Your task to perform on an android device: turn off location history Image 0: 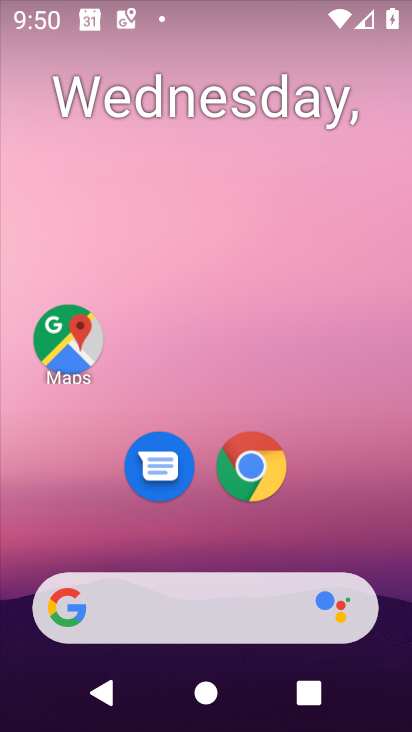
Step 0: drag from (336, 473) to (335, 225)
Your task to perform on an android device: turn off location history Image 1: 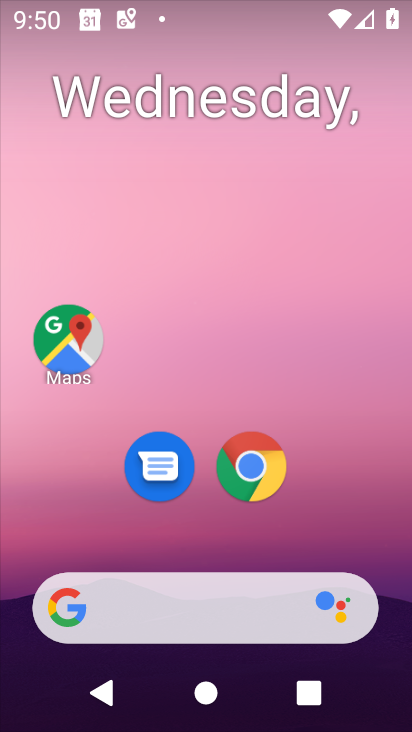
Step 1: drag from (299, 532) to (299, 411)
Your task to perform on an android device: turn off location history Image 2: 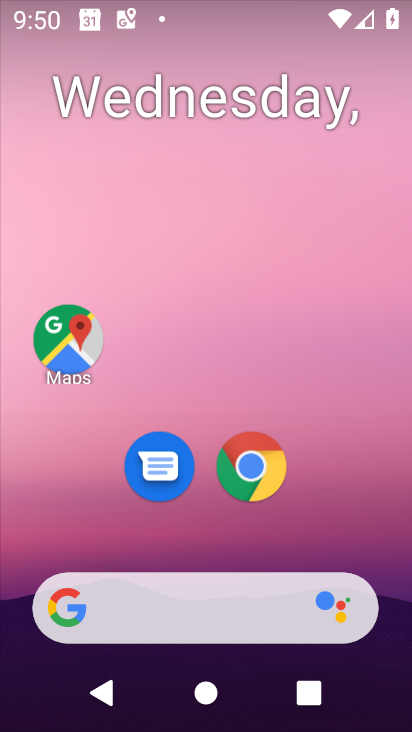
Step 2: click (96, 308)
Your task to perform on an android device: turn off location history Image 3: 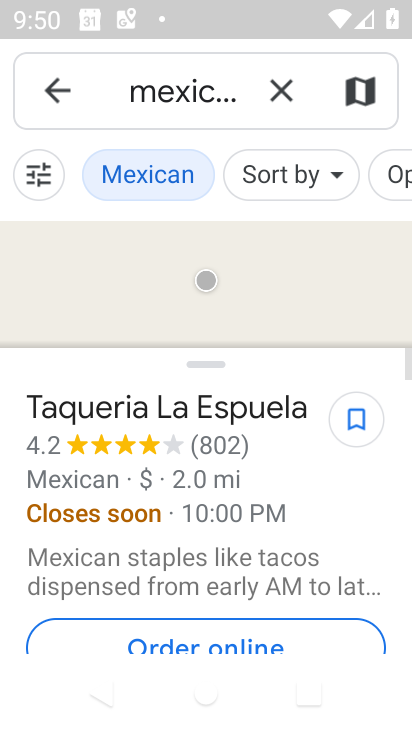
Step 3: click (273, 90)
Your task to perform on an android device: turn off location history Image 4: 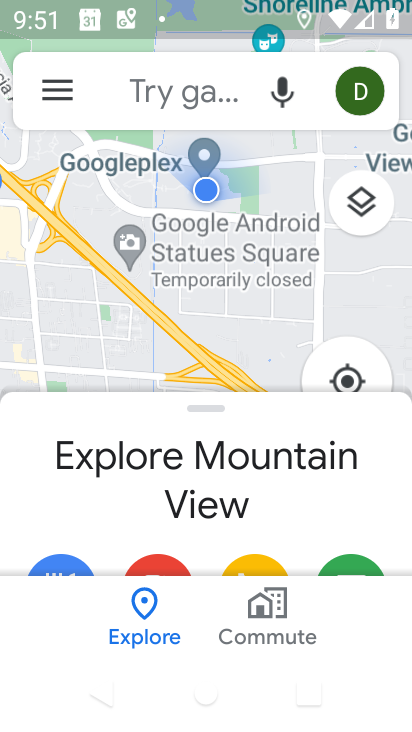
Step 4: click (46, 91)
Your task to perform on an android device: turn off location history Image 5: 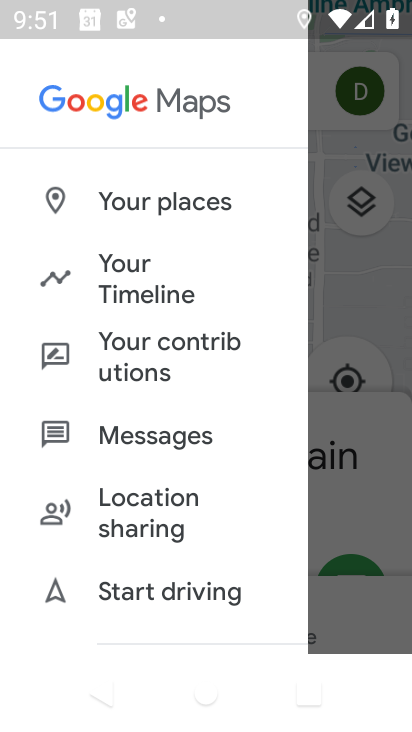
Step 5: drag from (224, 593) to (215, 468)
Your task to perform on an android device: turn off location history Image 6: 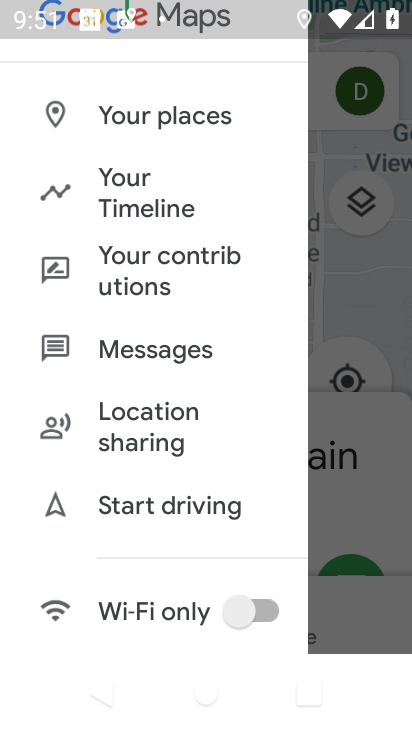
Step 6: click (140, 192)
Your task to perform on an android device: turn off location history Image 7: 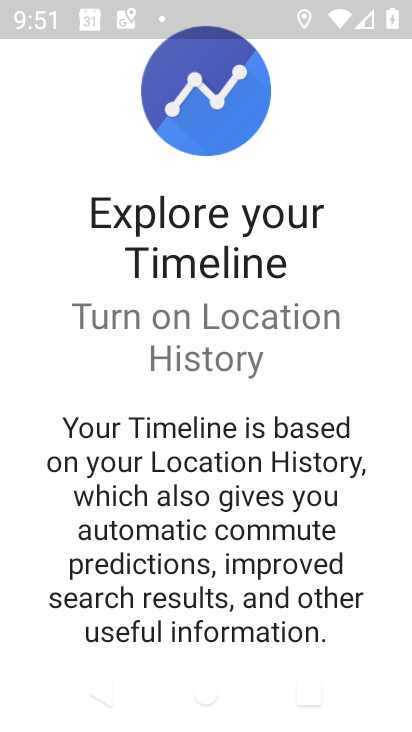
Step 7: drag from (226, 538) to (282, 40)
Your task to perform on an android device: turn off location history Image 8: 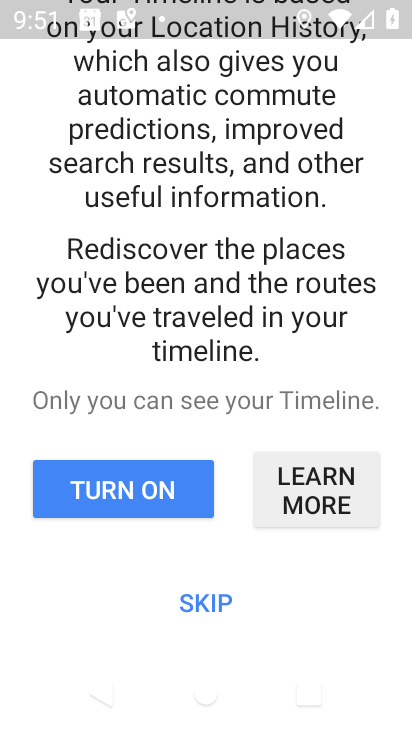
Step 8: click (216, 597)
Your task to perform on an android device: turn off location history Image 9: 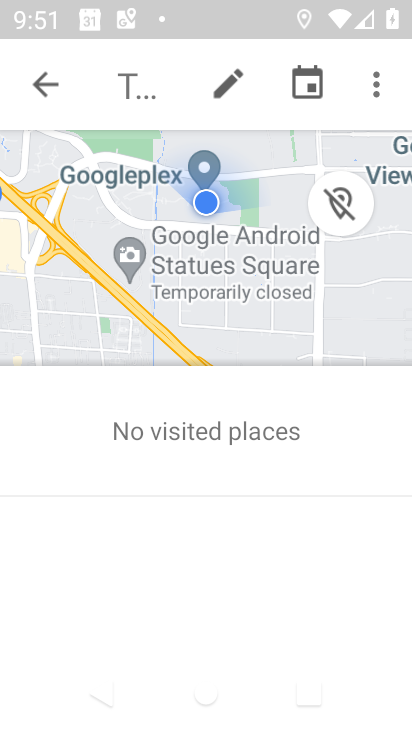
Step 9: click (369, 70)
Your task to perform on an android device: turn off location history Image 10: 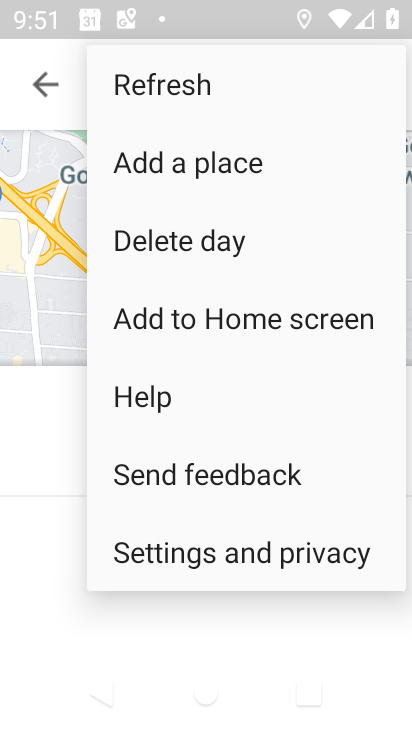
Step 10: click (208, 550)
Your task to perform on an android device: turn off location history Image 11: 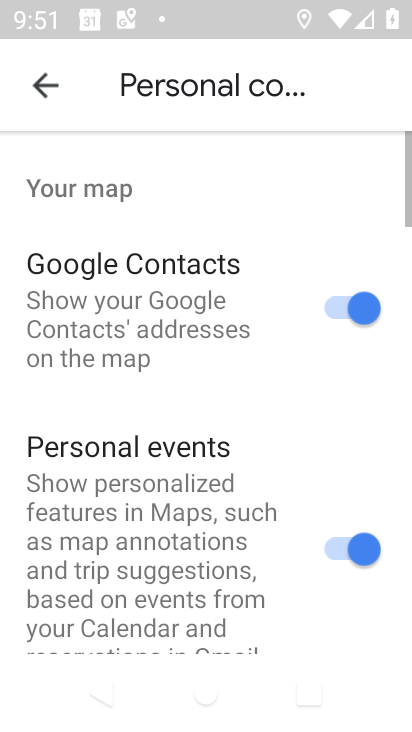
Step 11: drag from (193, 593) to (246, 152)
Your task to perform on an android device: turn off location history Image 12: 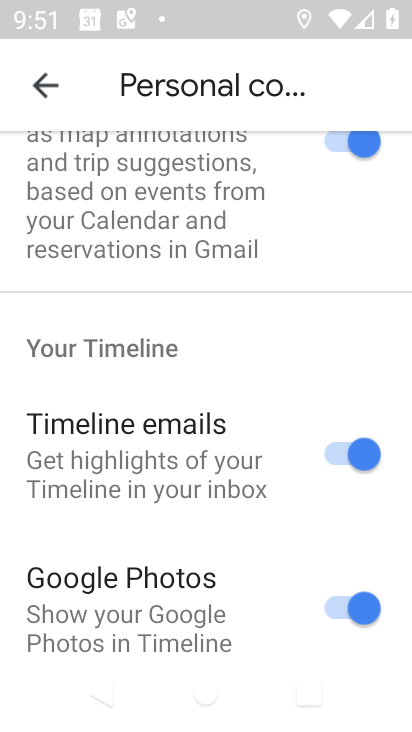
Step 12: drag from (200, 560) to (237, 131)
Your task to perform on an android device: turn off location history Image 13: 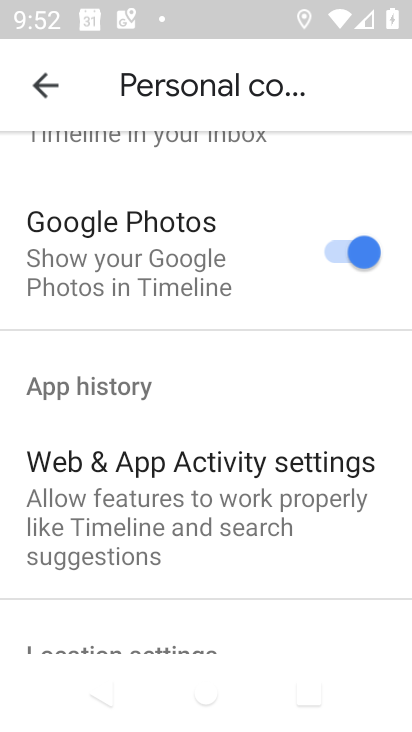
Step 13: drag from (168, 561) to (280, 132)
Your task to perform on an android device: turn off location history Image 14: 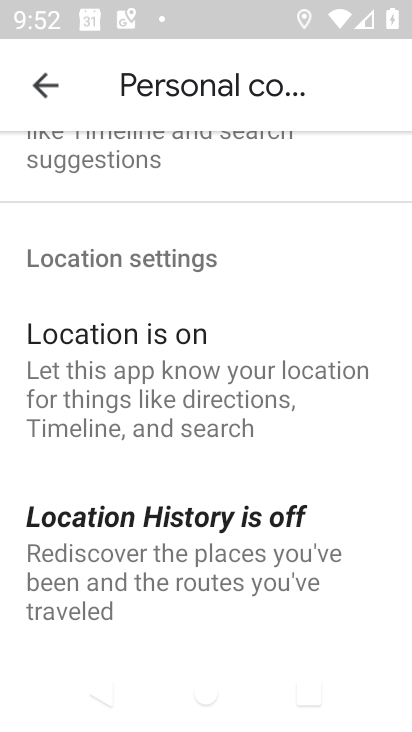
Step 14: click (176, 553)
Your task to perform on an android device: turn off location history Image 15: 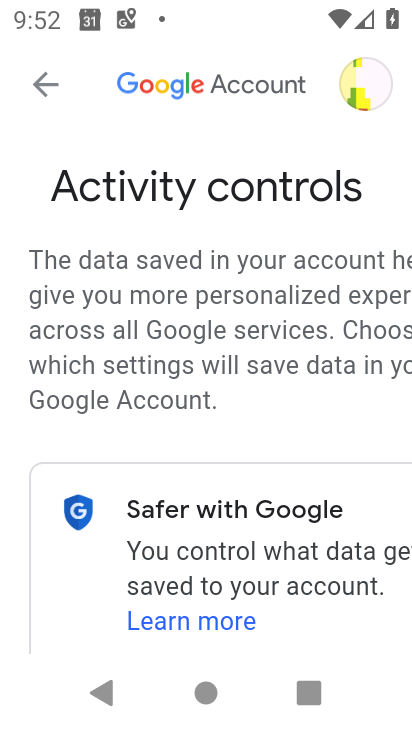
Step 15: task complete